Your task to perform on an android device: turn off airplane mode Image 0: 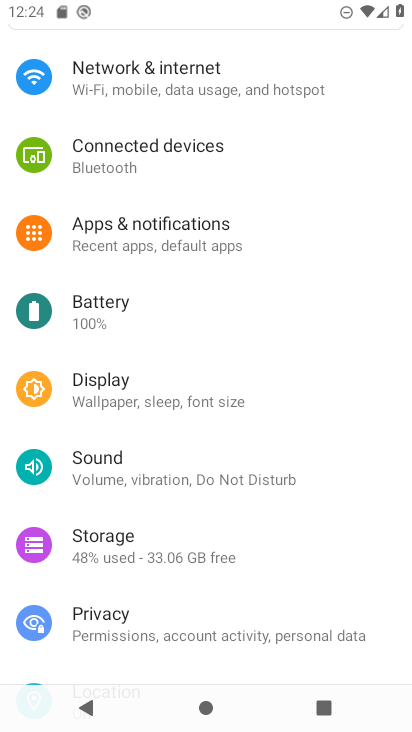
Step 0: click (248, 79)
Your task to perform on an android device: turn off airplane mode Image 1: 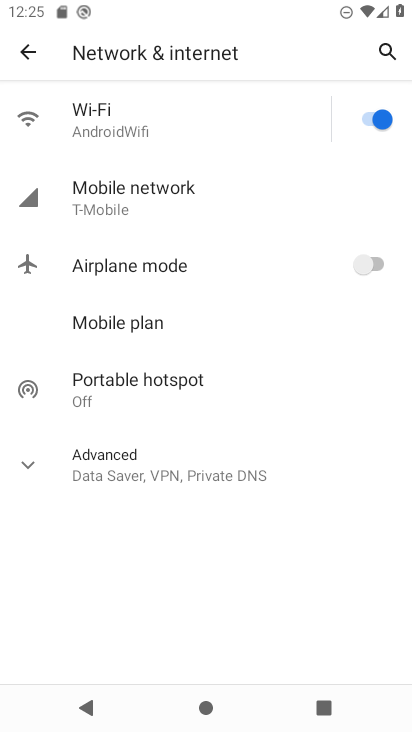
Step 1: task complete